Your task to perform on an android device: delete location history Image 0: 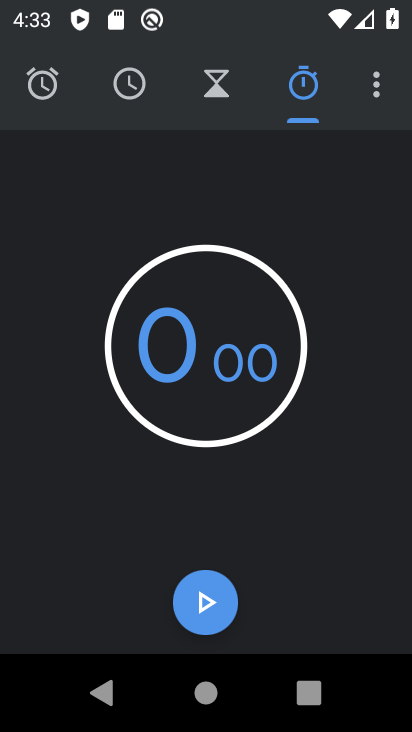
Step 0: press back button
Your task to perform on an android device: delete location history Image 1: 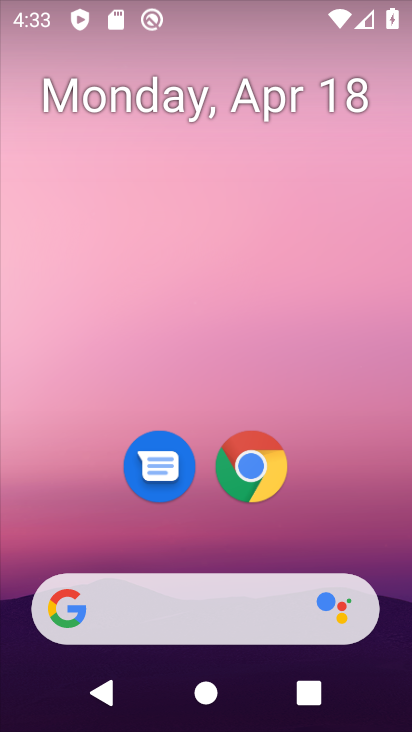
Step 1: drag from (315, 477) to (307, 50)
Your task to perform on an android device: delete location history Image 2: 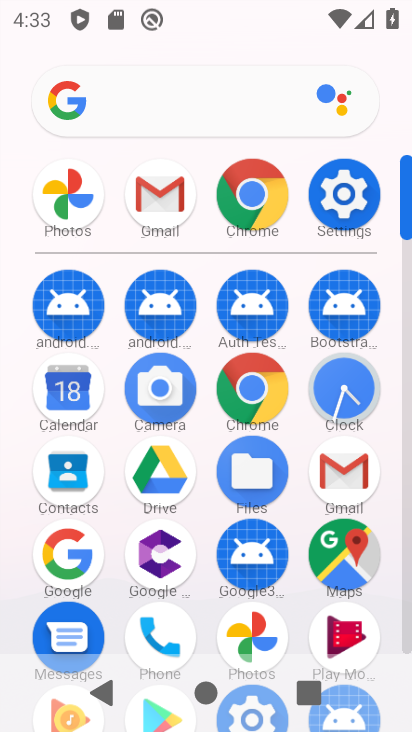
Step 2: click (342, 185)
Your task to perform on an android device: delete location history Image 3: 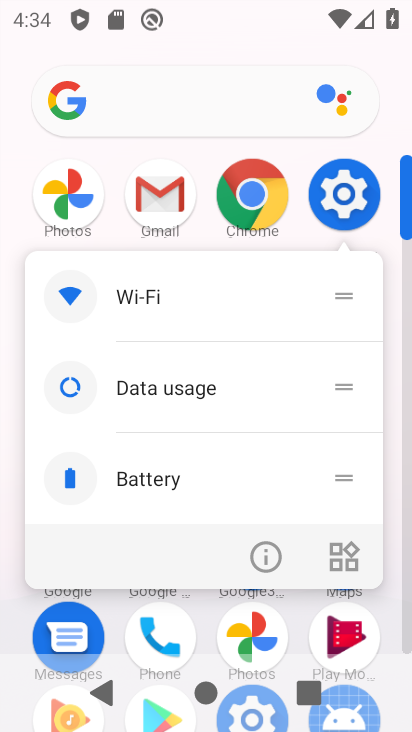
Step 3: click (7, 476)
Your task to perform on an android device: delete location history Image 4: 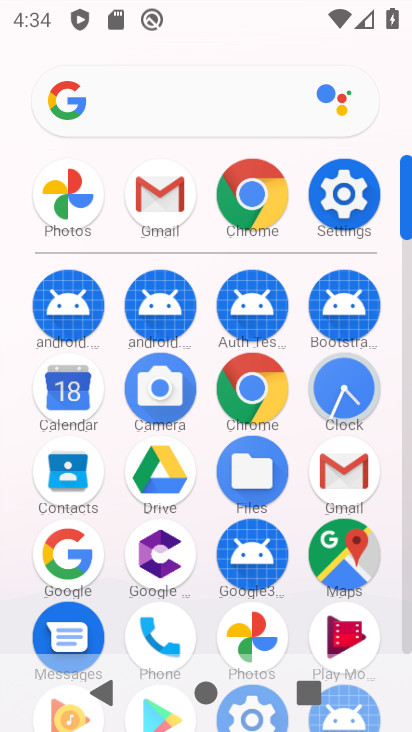
Step 4: click (342, 193)
Your task to perform on an android device: delete location history Image 5: 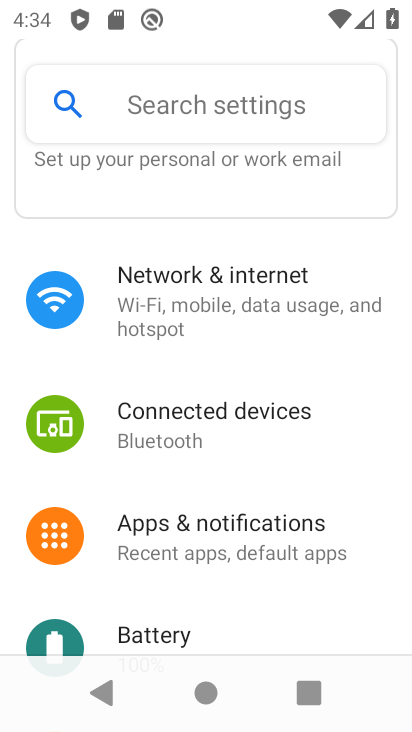
Step 5: drag from (288, 536) to (288, 175)
Your task to perform on an android device: delete location history Image 6: 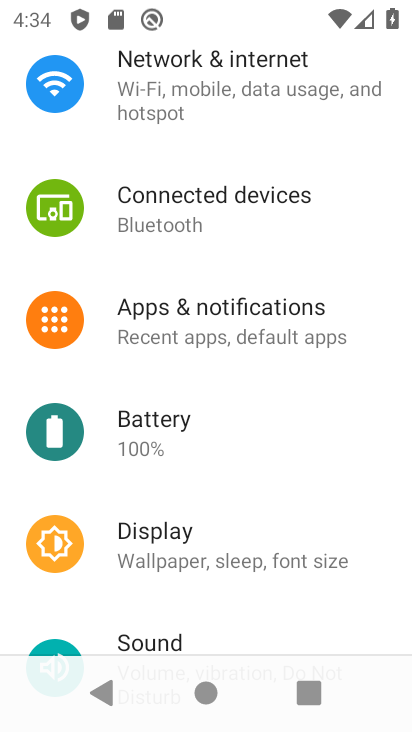
Step 6: drag from (291, 473) to (268, 125)
Your task to perform on an android device: delete location history Image 7: 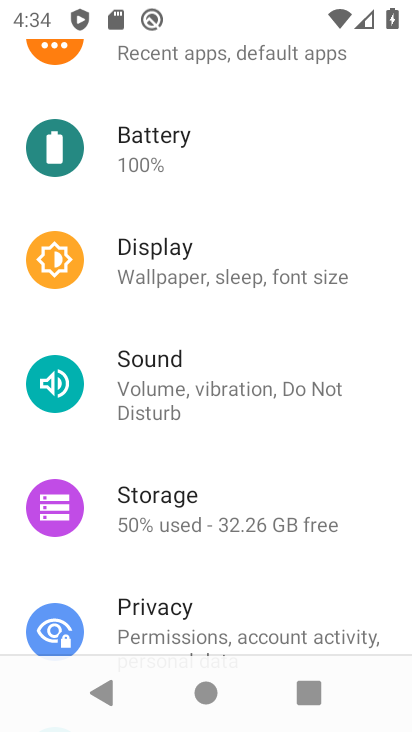
Step 7: drag from (250, 508) to (237, 126)
Your task to perform on an android device: delete location history Image 8: 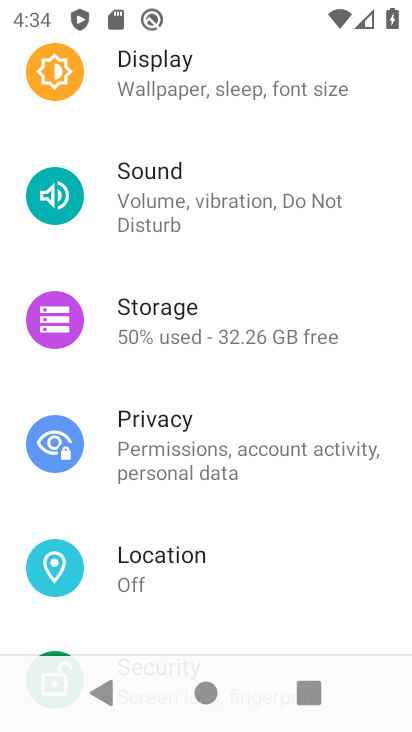
Step 8: click (162, 581)
Your task to perform on an android device: delete location history Image 9: 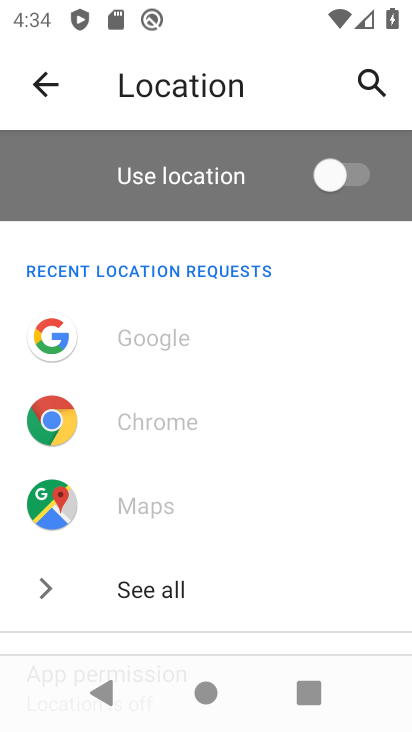
Step 9: drag from (236, 541) to (213, 144)
Your task to perform on an android device: delete location history Image 10: 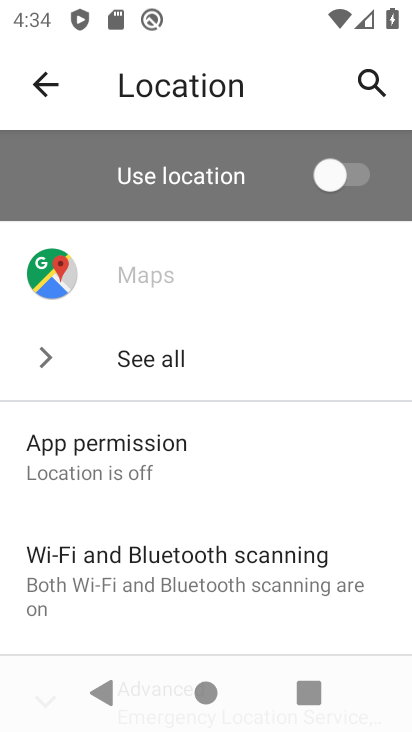
Step 10: drag from (203, 525) to (199, 219)
Your task to perform on an android device: delete location history Image 11: 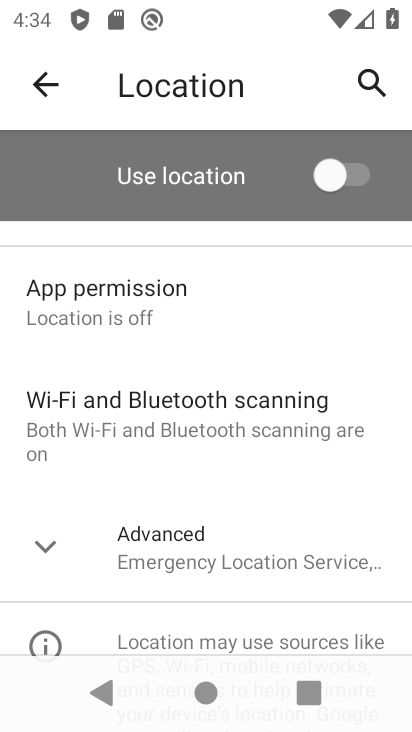
Step 11: click (184, 552)
Your task to perform on an android device: delete location history Image 12: 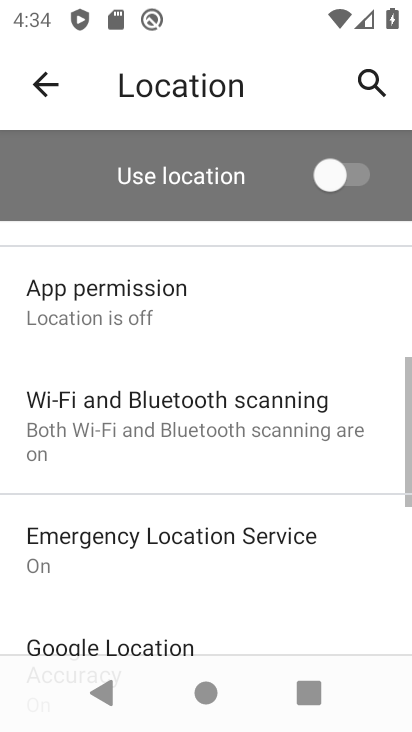
Step 12: drag from (231, 571) to (227, 189)
Your task to perform on an android device: delete location history Image 13: 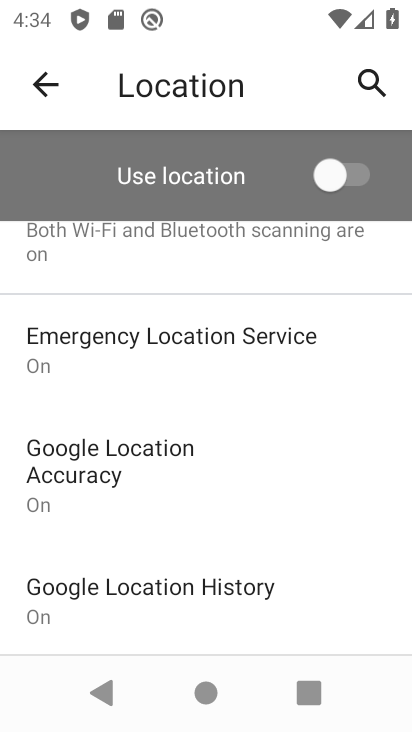
Step 13: drag from (204, 529) to (220, 215)
Your task to perform on an android device: delete location history Image 14: 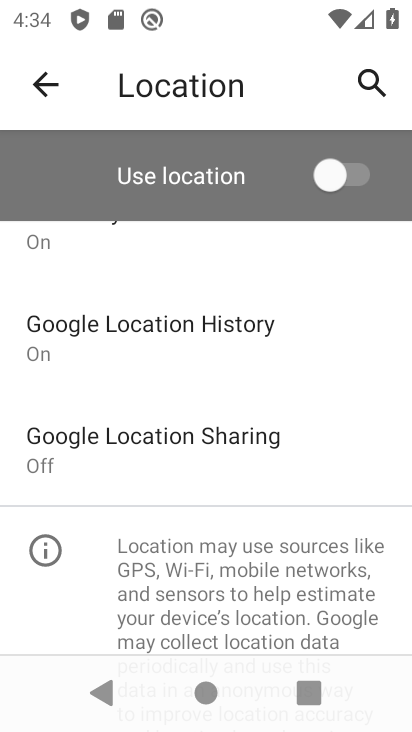
Step 14: click (190, 325)
Your task to perform on an android device: delete location history Image 15: 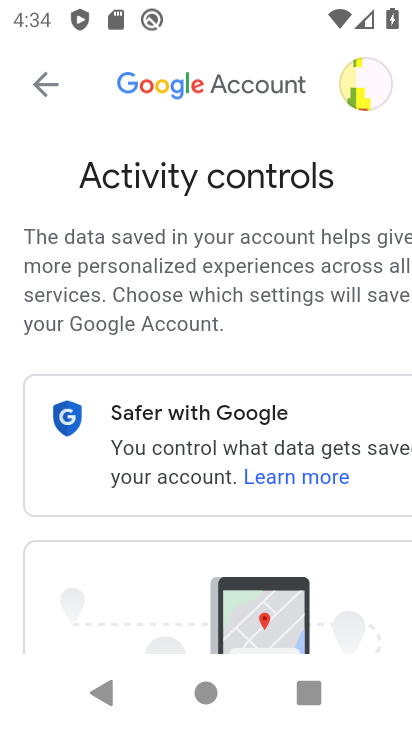
Step 15: drag from (283, 504) to (200, 98)
Your task to perform on an android device: delete location history Image 16: 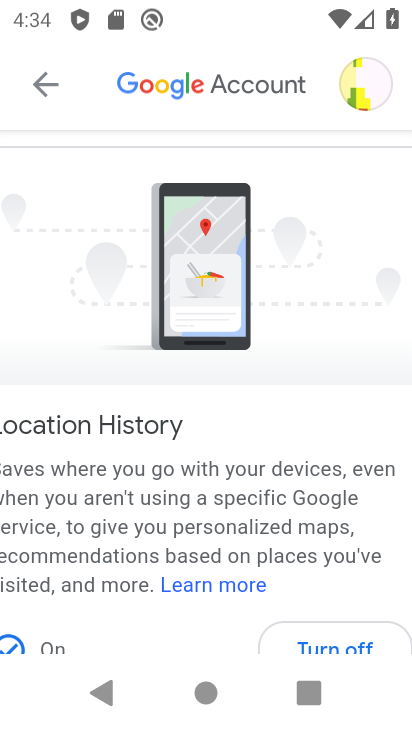
Step 16: drag from (234, 421) to (232, 146)
Your task to perform on an android device: delete location history Image 17: 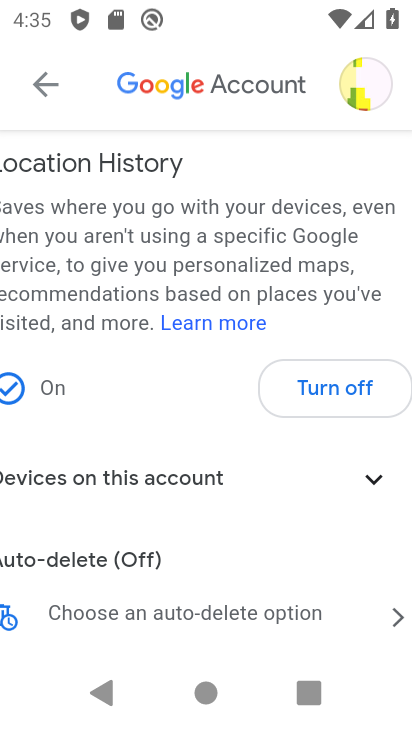
Step 17: drag from (150, 517) to (244, 217)
Your task to perform on an android device: delete location history Image 18: 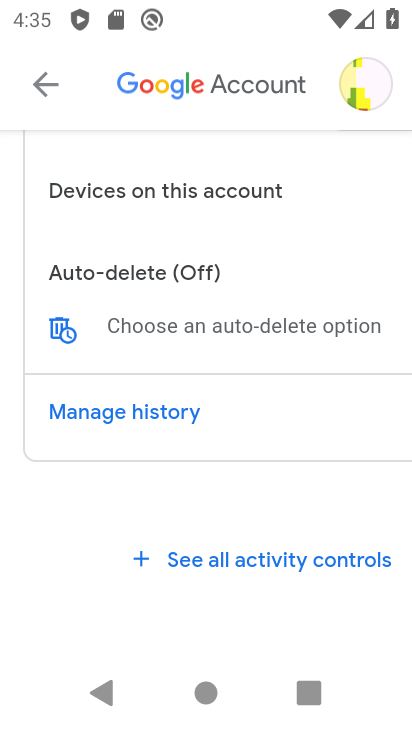
Step 18: click (135, 259)
Your task to perform on an android device: delete location history Image 19: 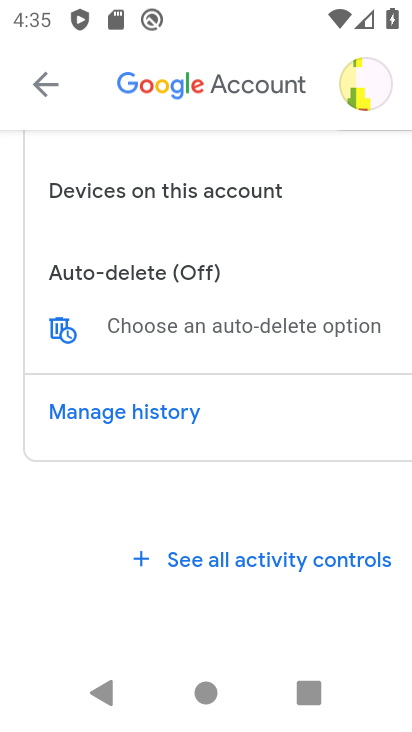
Step 19: click (78, 319)
Your task to perform on an android device: delete location history Image 20: 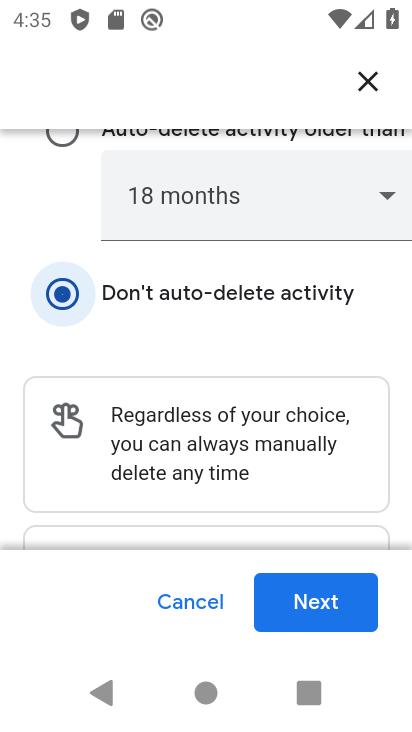
Step 20: click (309, 601)
Your task to perform on an android device: delete location history Image 21: 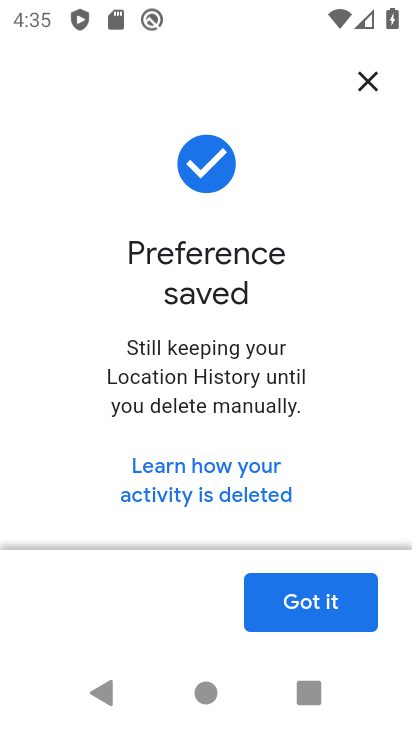
Step 21: task complete